Your task to perform on an android device: toggle improve location accuracy Image 0: 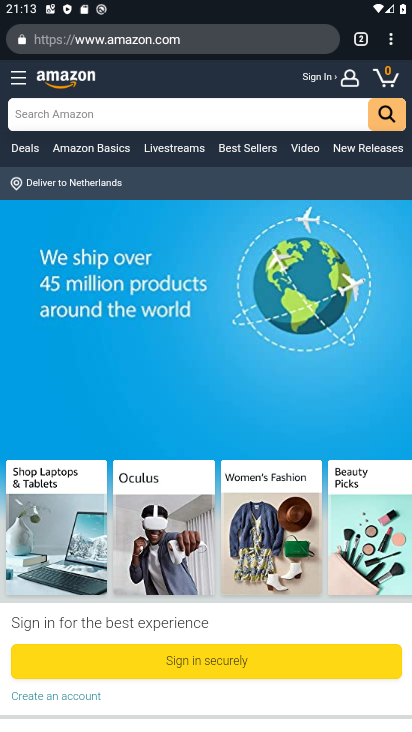
Step 0: click (397, 37)
Your task to perform on an android device: toggle improve location accuracy Image 1: 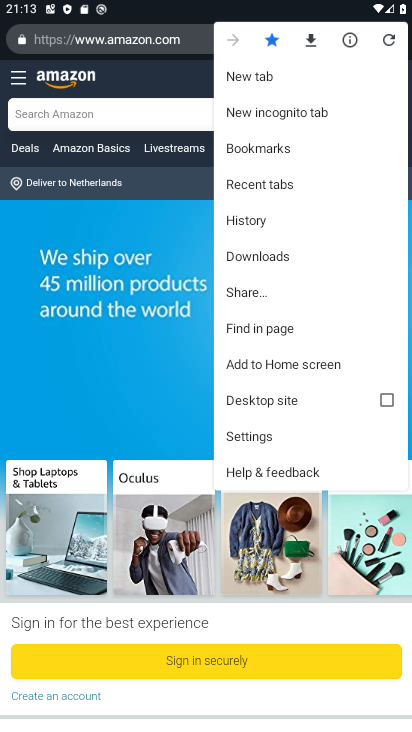
Step 1: press back button
Your task to perform on an android device: toggle improve location accuracy Image 2: 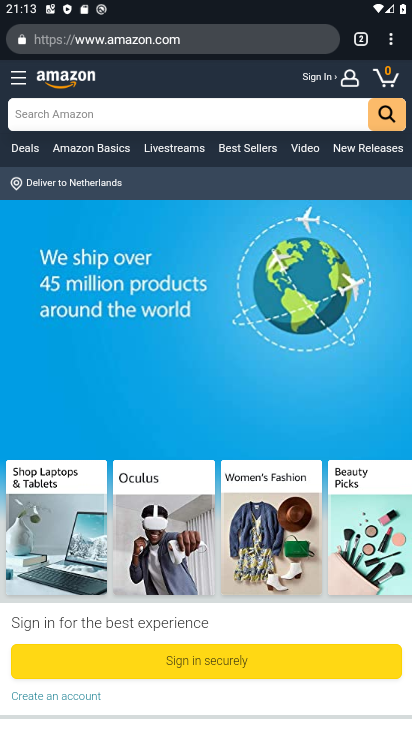
Step 2: press home button
Your task to perform on an android device: toggle improve location accuracy Image 3: 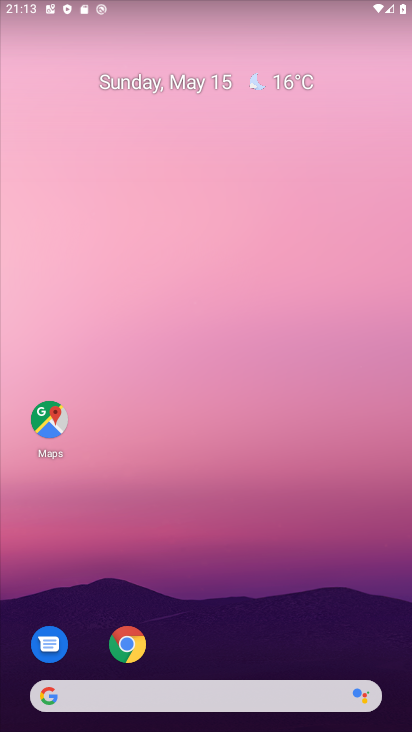
Step 3: drag from (215, 628) to (316, 110)
Your task to perform on an android device: toggle improve location accuracy Image 4: 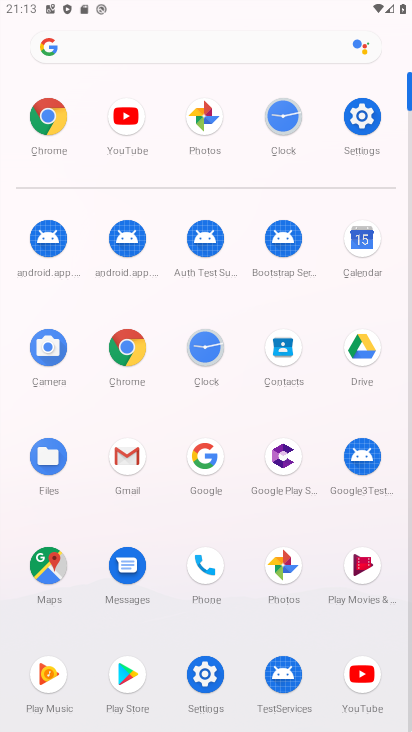
Step 4: click (369, 107)
Your task to perform on an android device: toggle improve location accuracy Image 5: 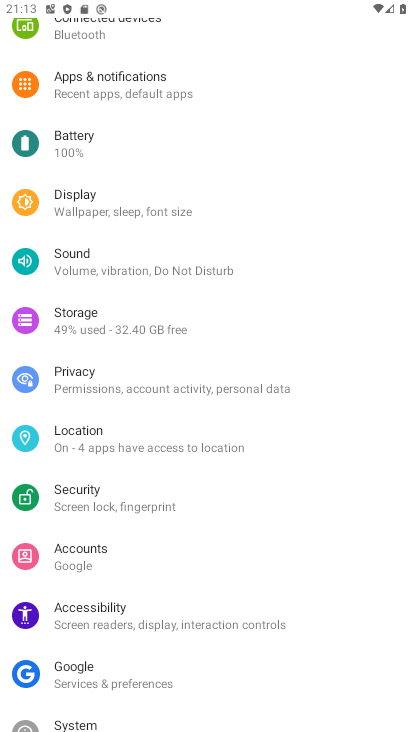
Step 5: click (118, 445)
Your task to perform on an android device: toggle improve location accuracy Image 6: 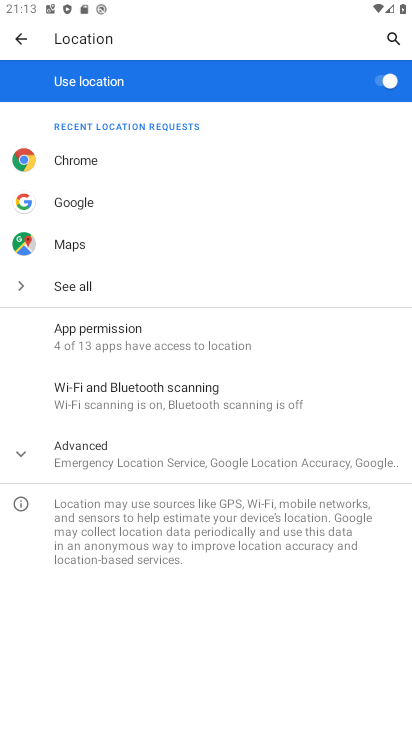
Step 6: click (214, 464)
Your task to perform on an android device: toggle improve location accuracy Image 7: 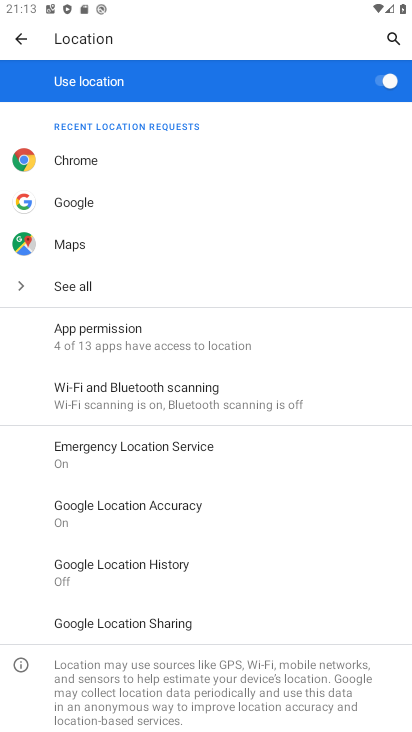
Step 7: click (140, 514)
Your task to perform on an android device: toggle improve location accuracy Image 8: 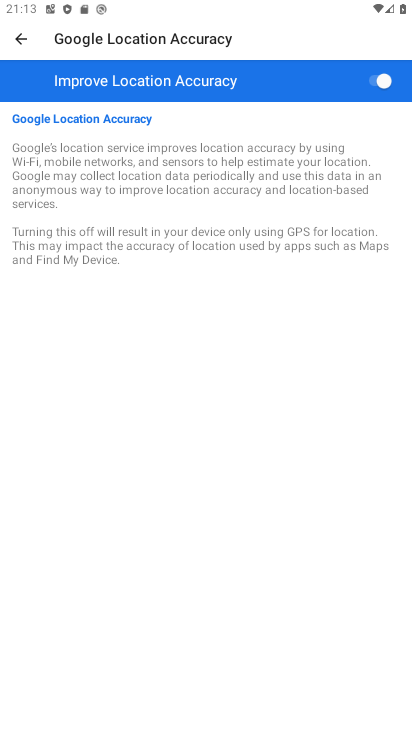
Step 8: click (382, 89)
Your task to perform on an android device: toggle improve location accuracy Image 9: 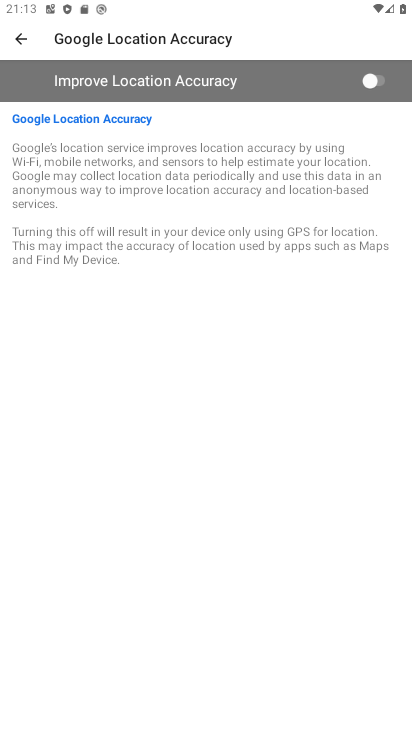
Step 9: task complete